Your task to perform on an android device: When is my next meeting? Image 0: 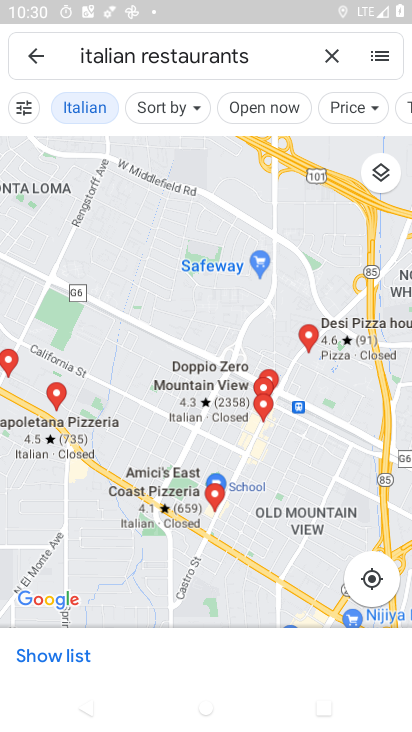
Step 0: press home button
Your task to perform on an android device: When is my next meeting? Image 1: 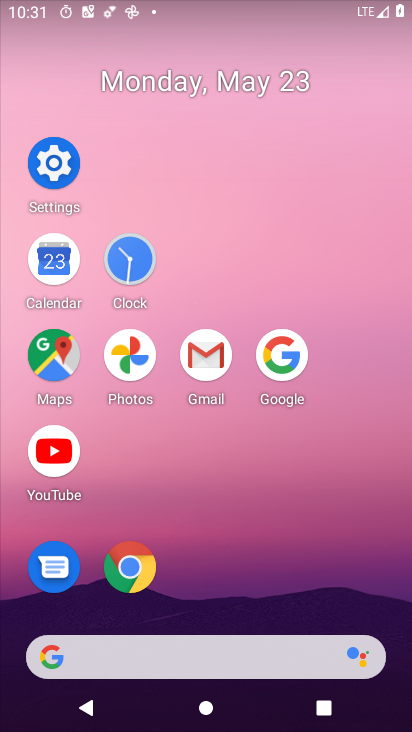
Step 1: click (44, 274)
Your task to perform on an android device: When is my next meeting? Image 2: 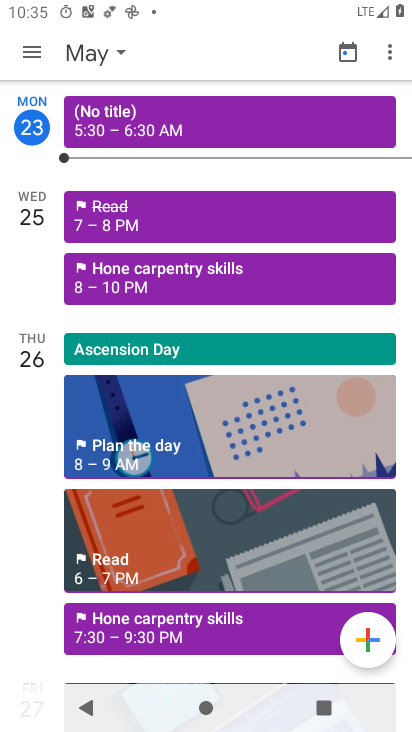
Step 2: click (20, 226)
Your task to perform on an android device: When is my next meeting? Image 3: 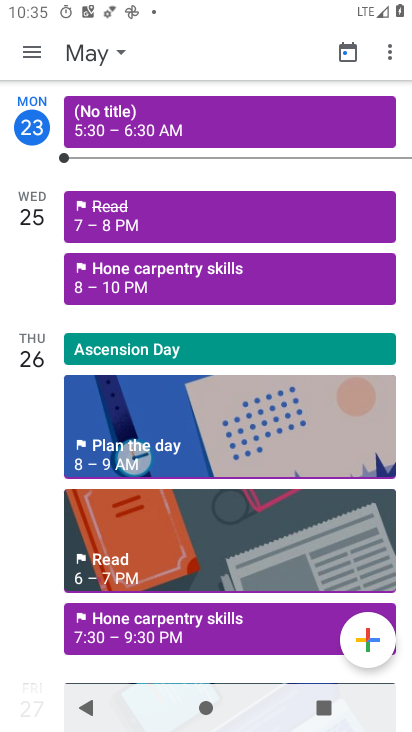
Step 3: click (36, 209)
Your task to perform on an android device: When is my next meeting? Image 4: 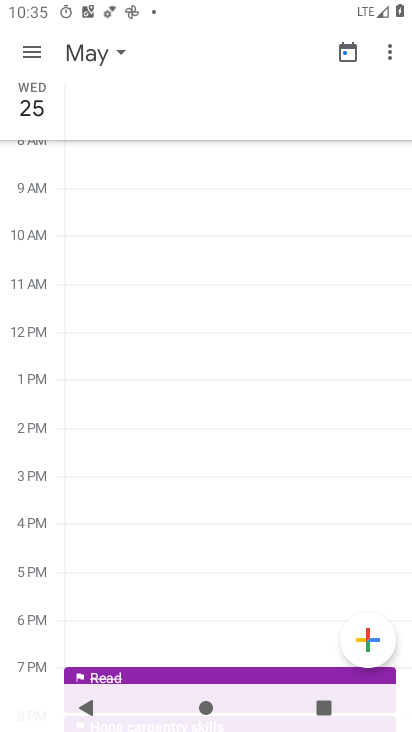
Step 4: task complete